Your task to perform on an android device: change the upload size in google photos Image 0: 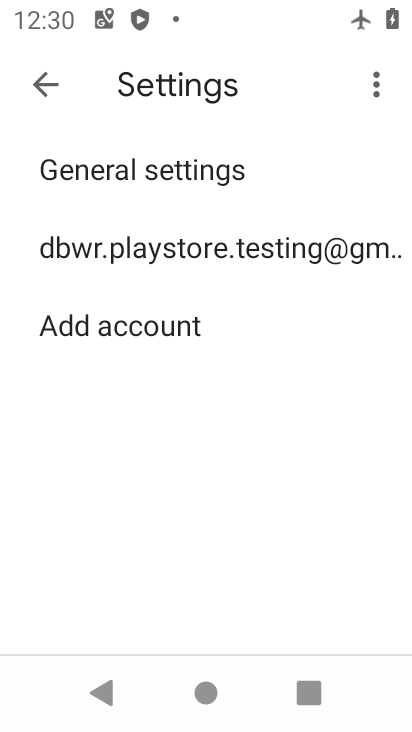
Step 0: press back button
Your task to perform on an android device: change the upload size in google photos Image 1: 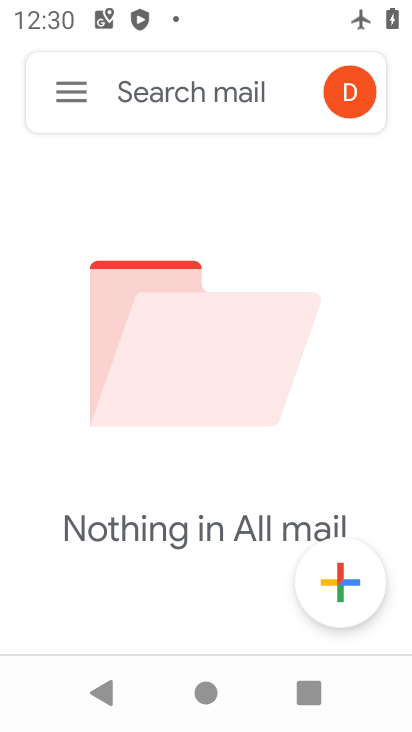
Step 1: press home button
Your task to perform on an android device: change the upload size in google photos Image 2: 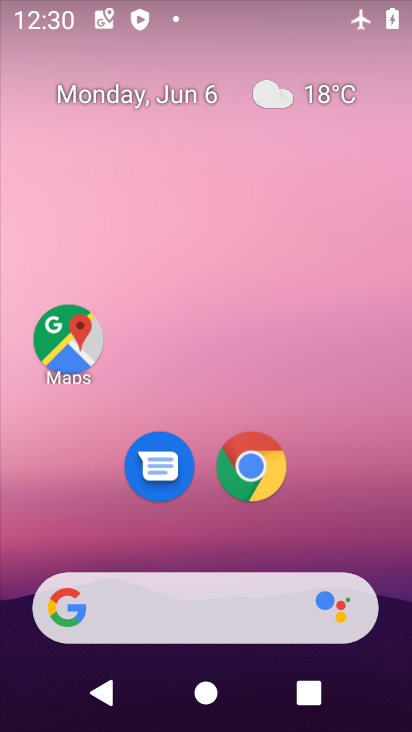
Step 2: drag from (358, 538) to (261, 3)
Your task to perform on an android device: change the upload size in google photos Image 3: 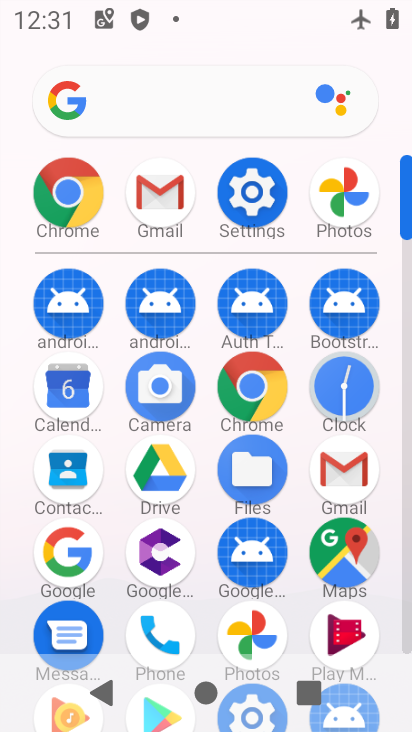
Step 3: drag from (11, 557) to (19, 268)
Your task to perform on an android device: change the upload size in google photos Image 4: 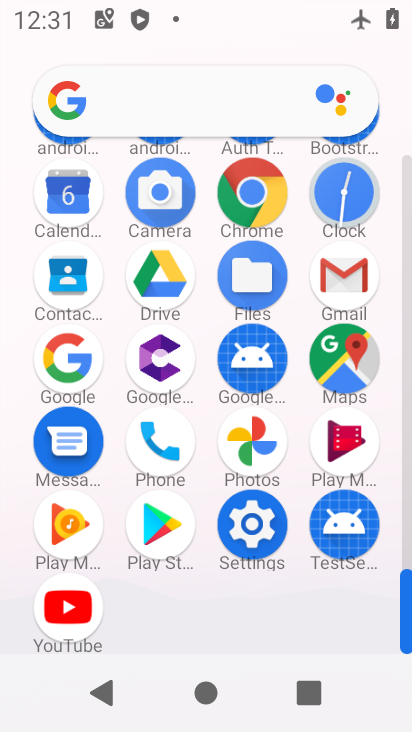
Step 4: click (252, 433)
Your task to perform on an android device: change the upload size in google photos Image 5: 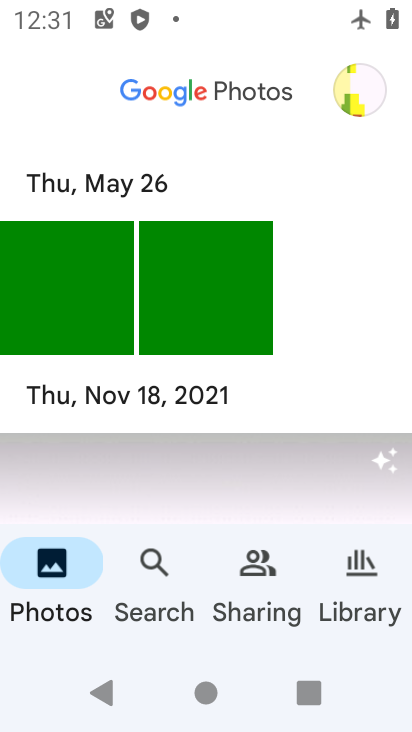
Step 5: click (357, 574)
Your task to perform on an android device: change the upload size in google photos Image 6: 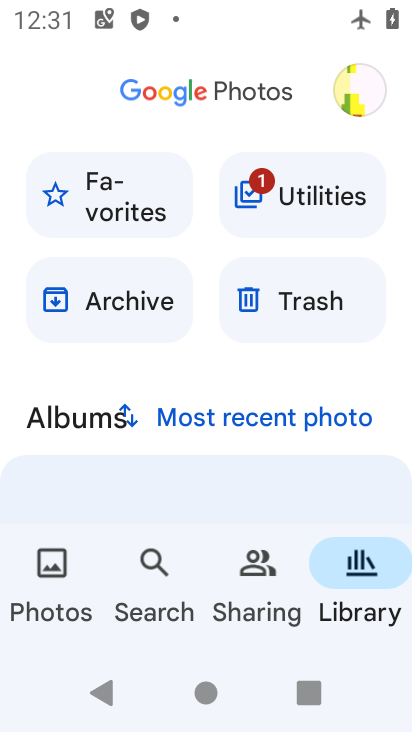
Step 6: click (314, 310)
Your task to perform on an android device: change the upload size in google photos Image 7: 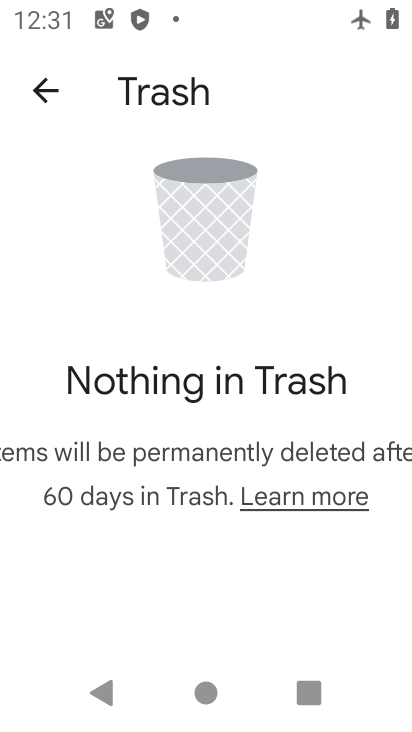
Step 7: click (32, 83)
Your task to perform on an android device: change the upload size in google photos Image 8: 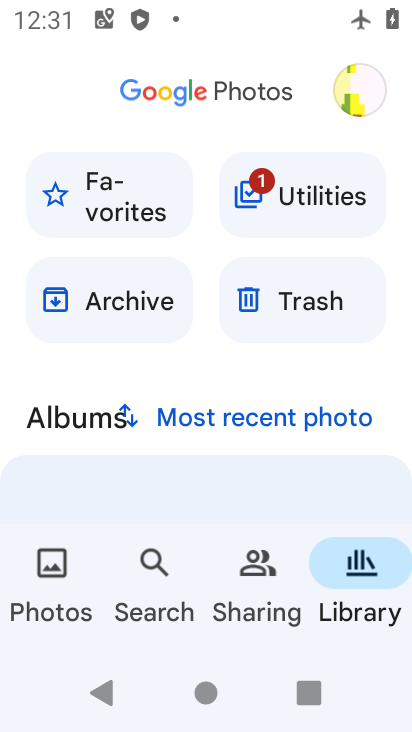
Step 8: click (357, 95)
Your task to perform on an android device: change the upload size in google photos Image 9: 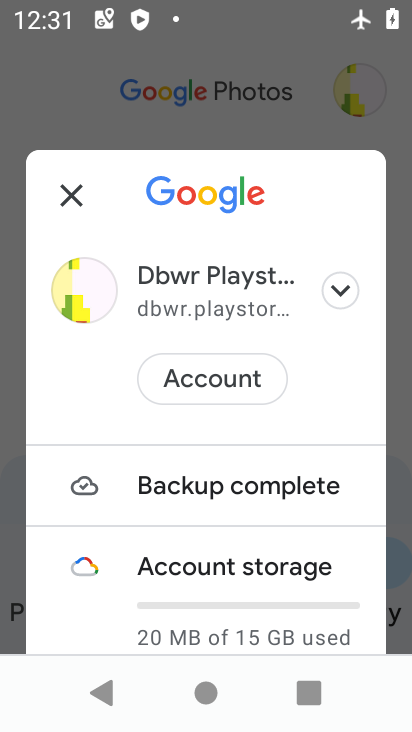
Step 9: drag from (268, 571) to (301, 206)
Your task to perform on an android device: change the upload size in google photos Image 10: 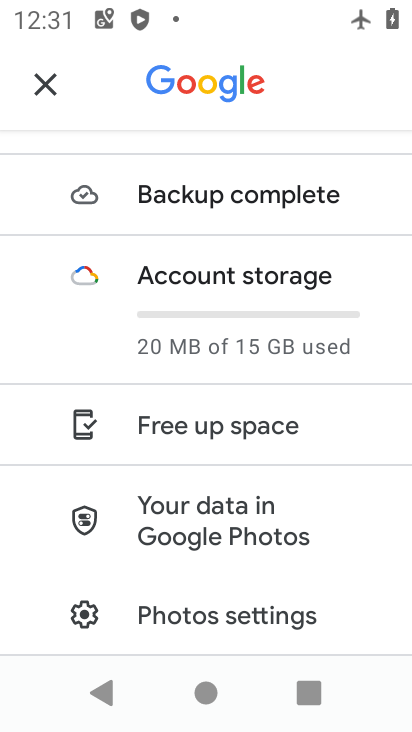
Step 10: drag from (259, 559) to (302, 234)
Your task to perform on an android device: change the upload size in google photos Image 11: 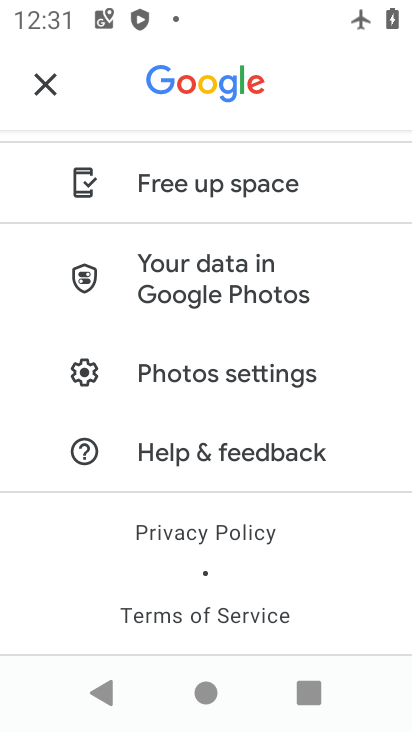
Step 11: click (219, 365)
Your task to perform on an android device: change the upload size in google photos Image 12: 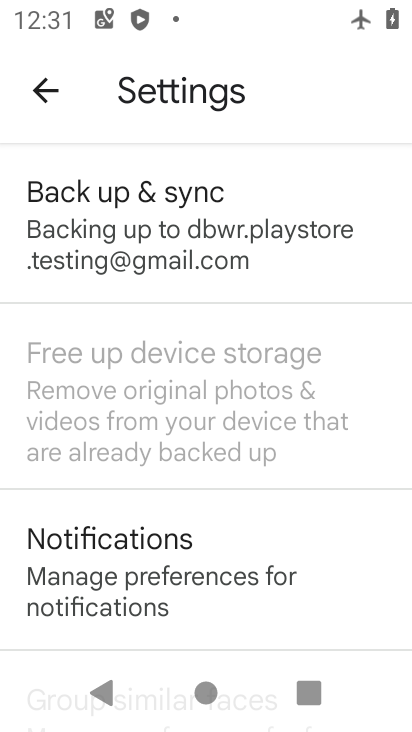
Step 12: click (255, 527)
Your task to perform on an android device: change the upload size in google photos Image 13: 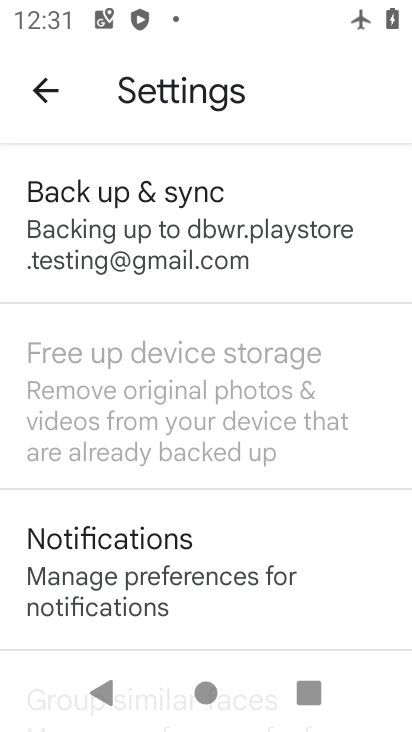
Step 13: click (220, 277)
Your task to perform on an android device: change the upload size in google photos Image 14: 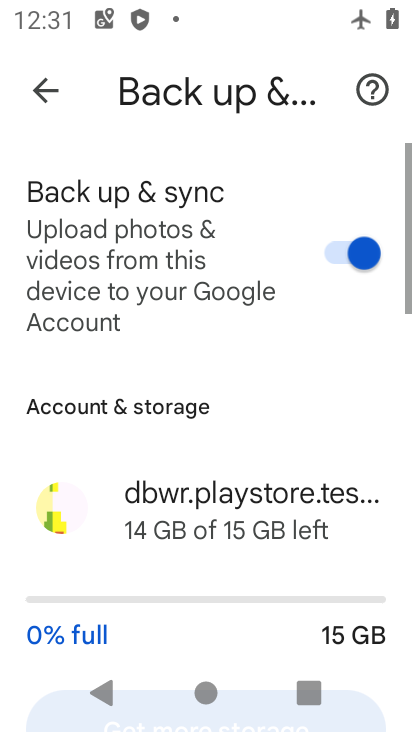
Step 14: drag from (228, 581) to (245, 169)
Your task to perform on an android device: change the upload size in google photos Image 15: 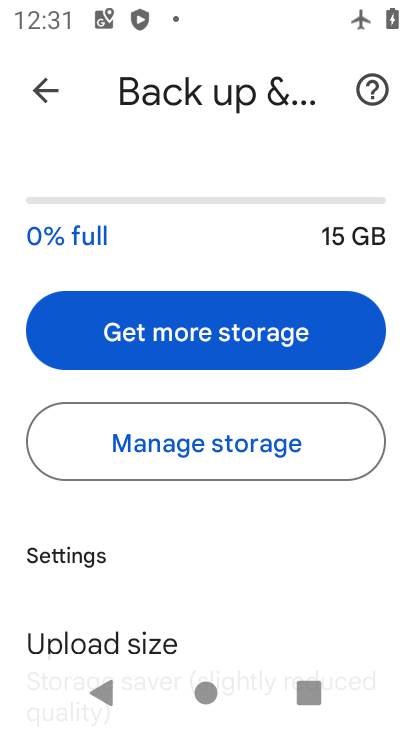
Step 15: drag from (246, 588) to (251, 181)
Your task to perform on an android device: change the upload size in google photos Image 16: 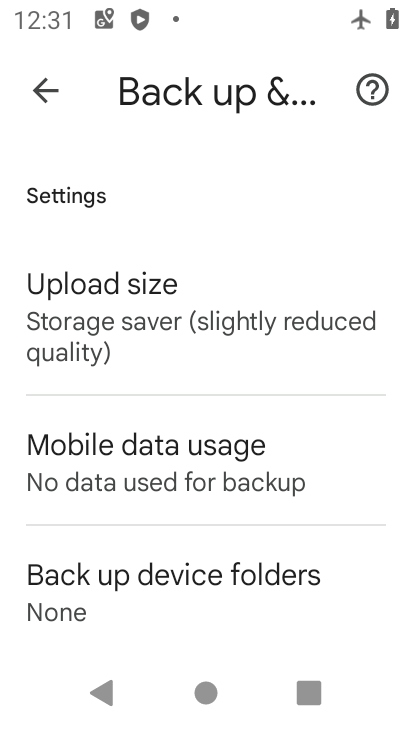
Step 16: click (239, 325)
Your task to perform on an android device: change the upload size in google photos Image 17: 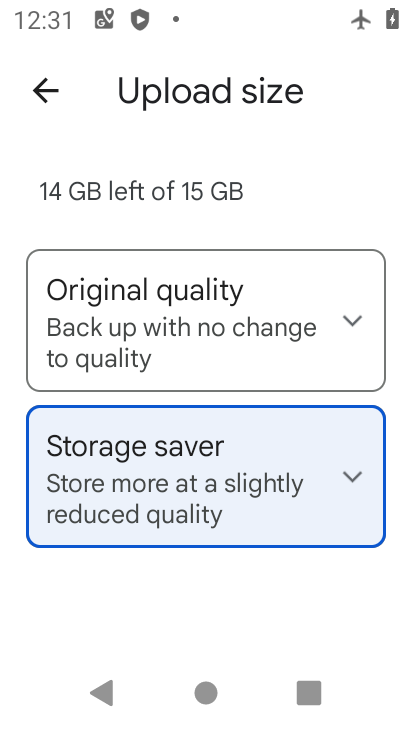
Step 17: click (239, 325)
Your task to perform on an android device: change the upload size in google photos Image 18: 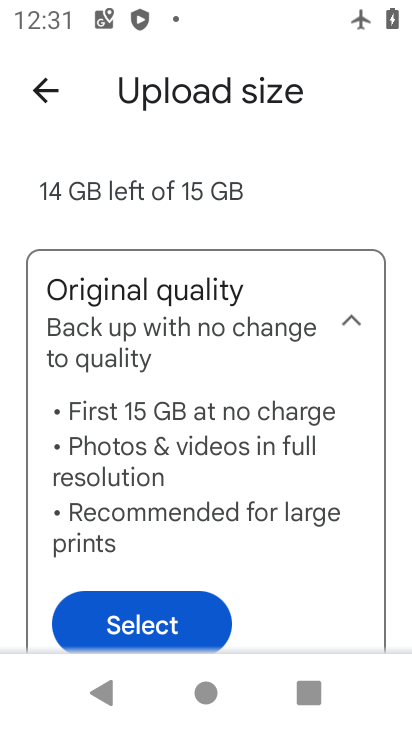
Step 18: click (145, 634)
Your task to perform on an android device: change the upload size in google photos Image 19: 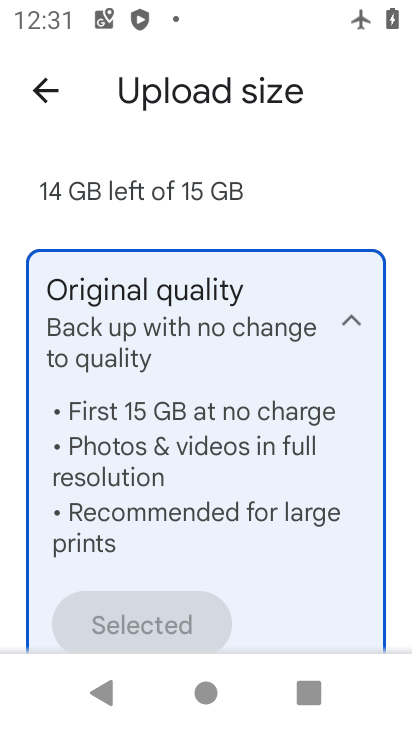
Step 19: task complete